Your task to perform on an android device: Go to settings Image 0: 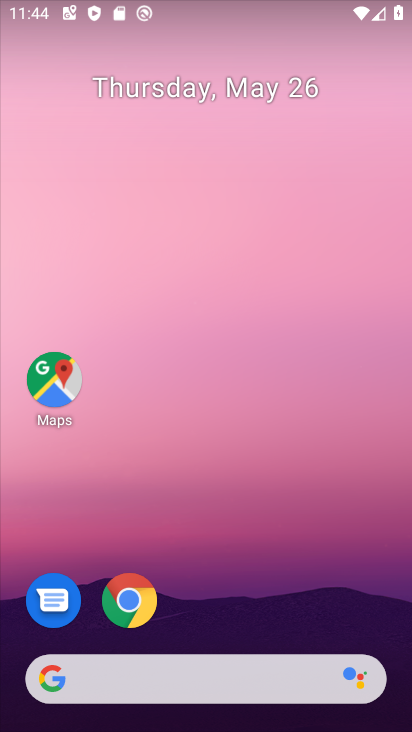
Step 0: drag from (229, 194) to (221, 41)
Your task to perform on an android device: Go to settings Image 1: 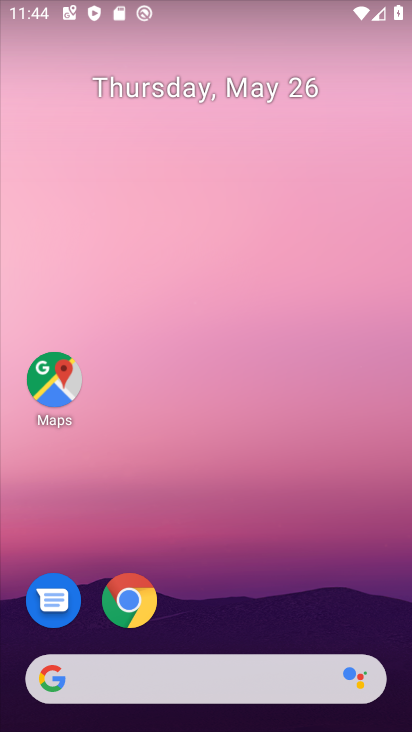
Step 1: drag from (182, 632) to (251, 272)
Your task to perform on an android device: Go to settings Image 2: 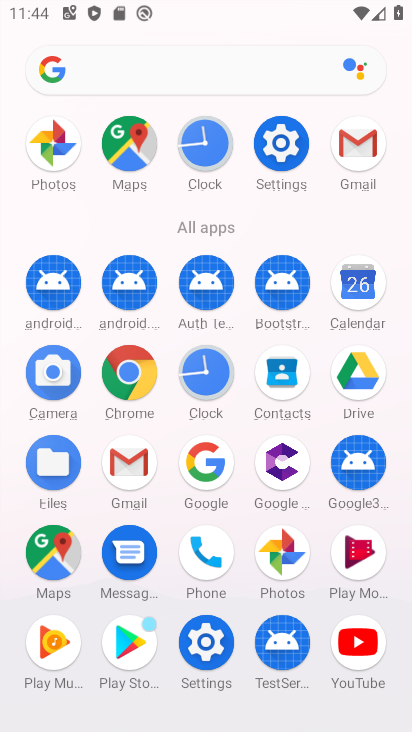
Step 2: click (276, 159)
Your task to perform on an android device: Go to settings Image 3: 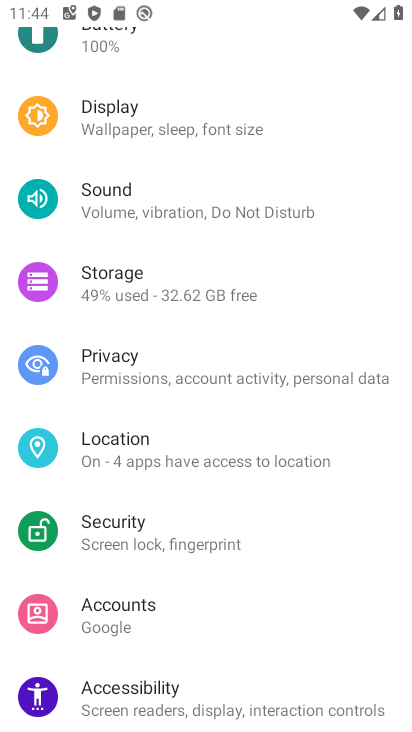
Step 3: task complete